Your task to perform on an android device: Check the weather Image 0: 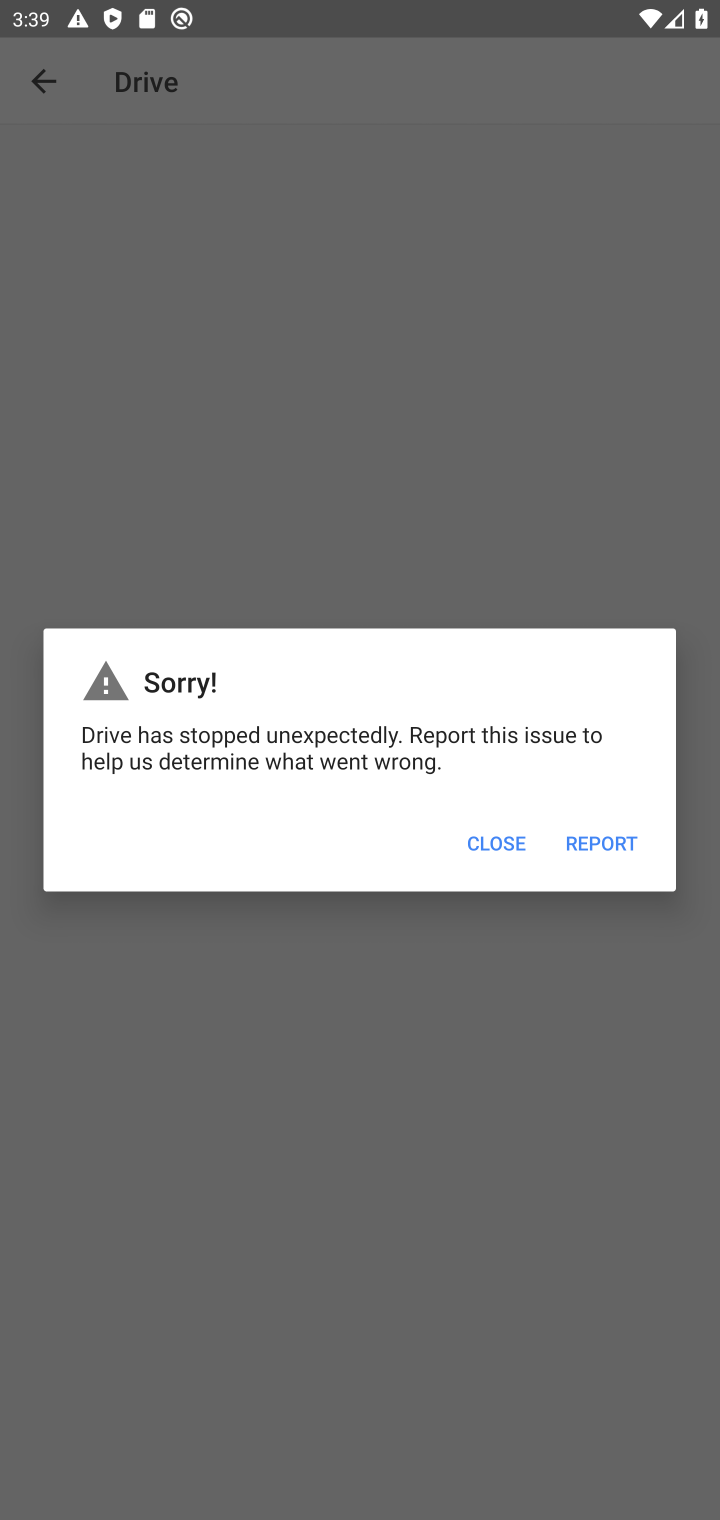
Step 0: task complete